Your task to perform on an android device: toggle translation in the chrome app Image 0: 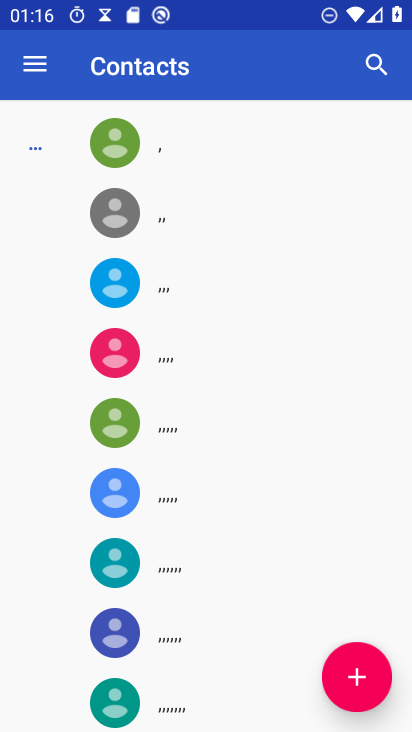
Step 0: press home button
Your task to perform on an android device: toggle translation in the chrome app Image 1: 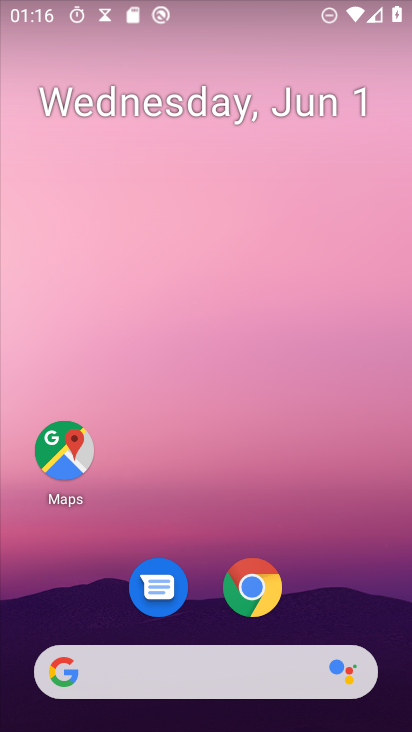
Step 1: click (247, 593)
Your task to perform on an android device: toggle translation in the chrome app Image 2: 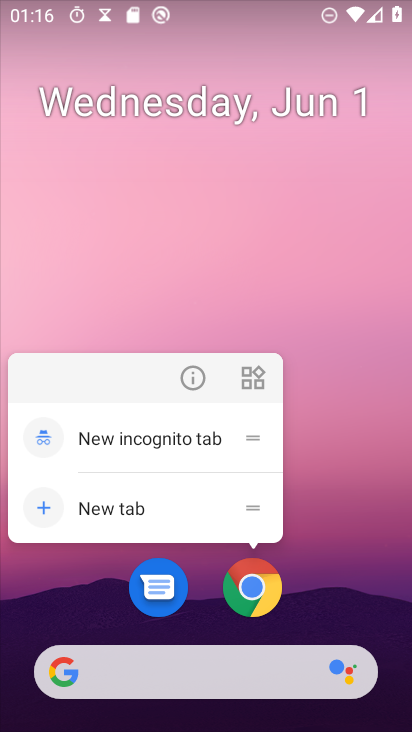
Step 2: click (236, 584)
Your task to perform on an android device: toggle translation in the chrome app Image 3: 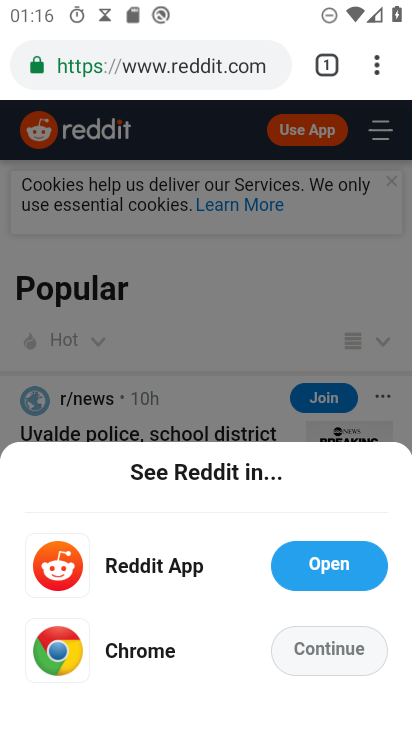
Step 3: click (371, 78)
Your task to perform on an android device: toggle translation in the chrome app Image 4: 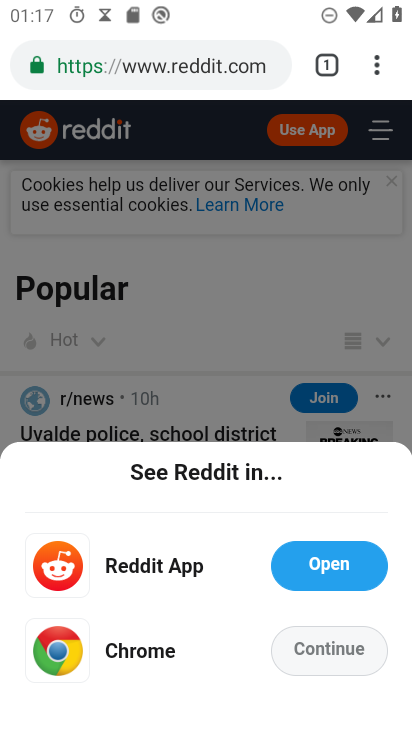
Step 4: click (387, 69)
Your task to perform on an android device: toggle translation in the chrome app Image 5: 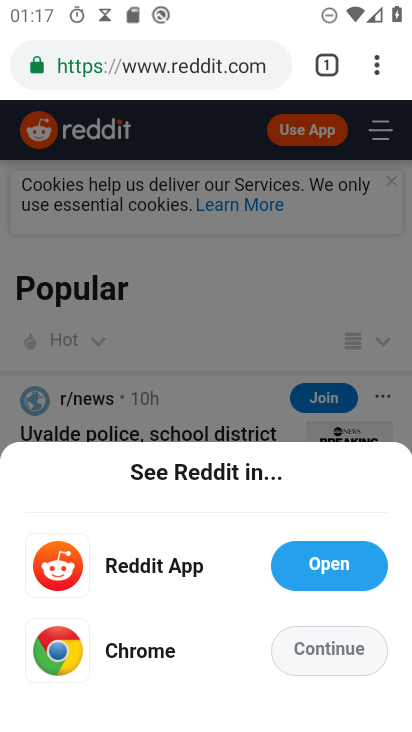
Step 5: click (384, 84)
Your task to perform on an android device: toggle translation in the chrome app Image 6: 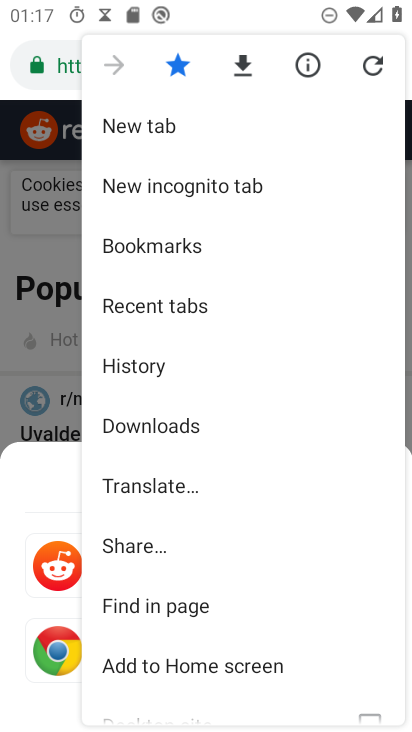
Step 6: drag from (185, 616) to (196, 185)
Your task to perform on an android device: toggle translation in the chrome app Image 7: 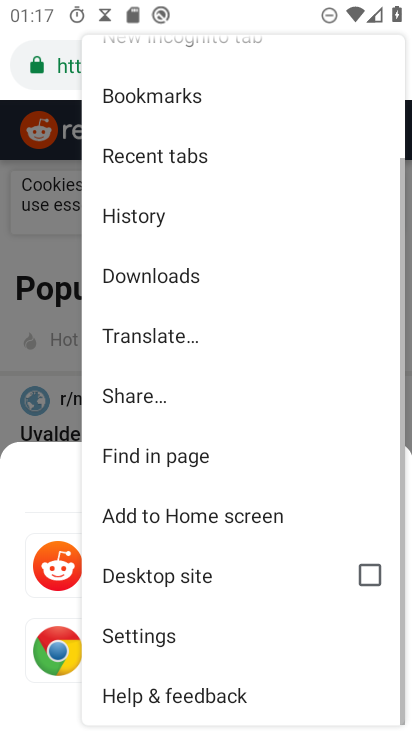
Step 7: click (142, 640)
Your task to perform on an android device: toggle translation in the chrome app Image 8: 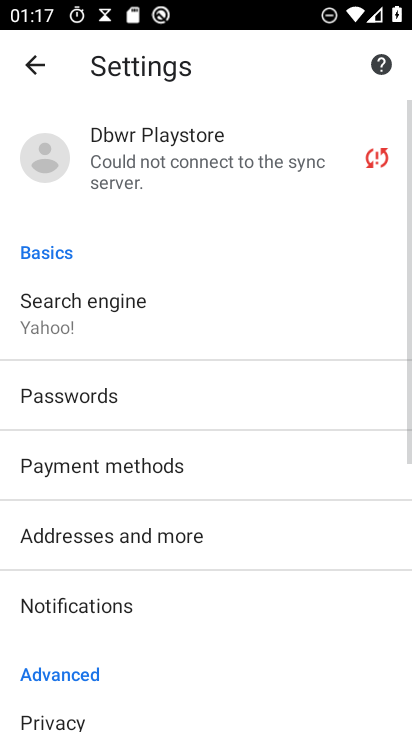
Step 8: drag from (220, 638) to (259, 249)
Your task to perform on an android device: toggle translation in the chrome app Image 9: 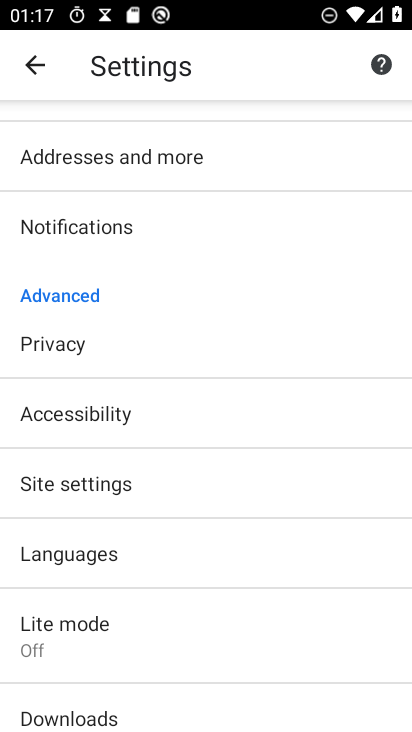
Step 9: click (106, 556)
Your task to perform on an android device: toggle translation in the chrome app Image 10: 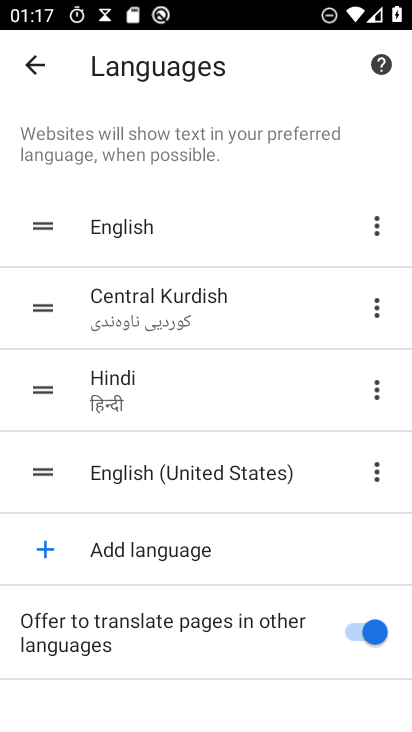
Step 10: click (361, 619)
Your task to perform on an android device: toggle translation in the chrome app Image 11: 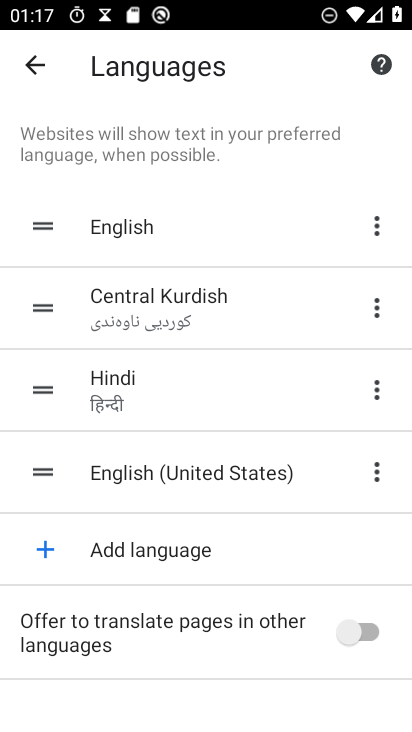
Step 11: task complete